Your task to perform on an android device: turn pop-ups on in chrome Image 0: 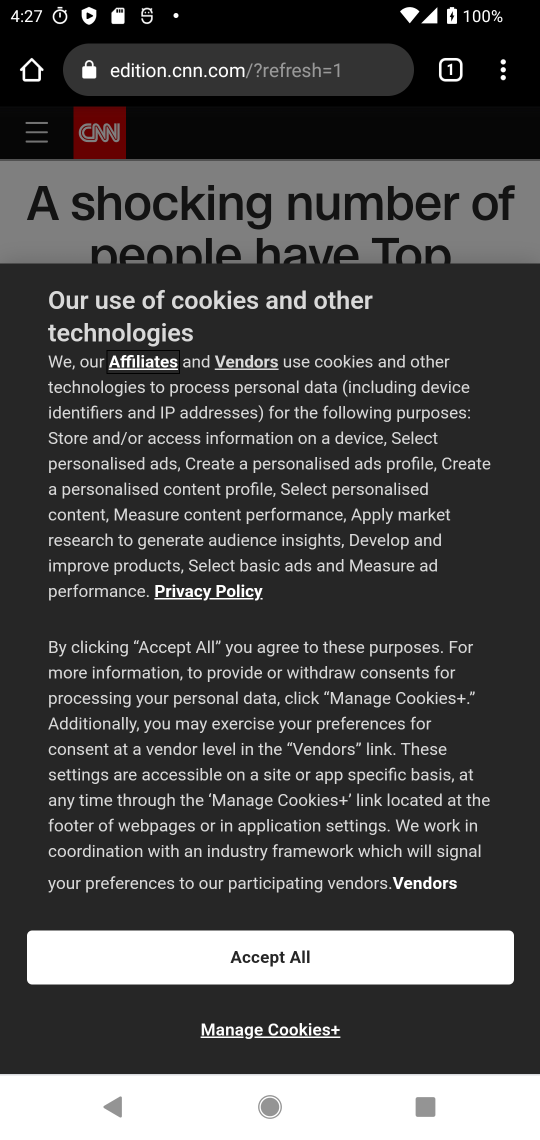
Step 0: press home button
Your task to perform on an android device: turn pop-ups on in chrome Image 1: 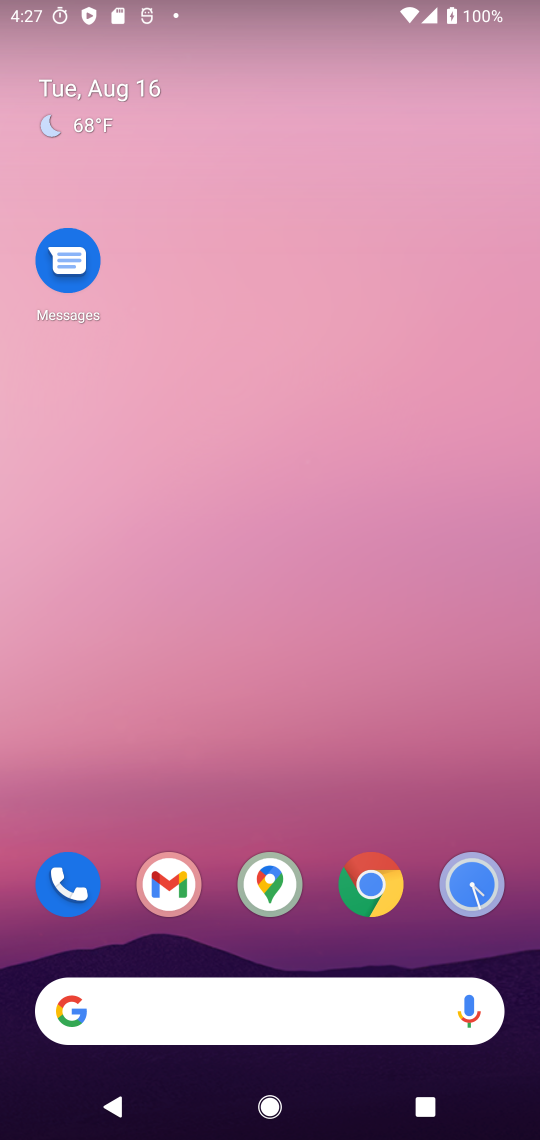
Step 1: click (377, 896)
Your task to perform on an android device: turn pop-ups on in chrome Image 2: 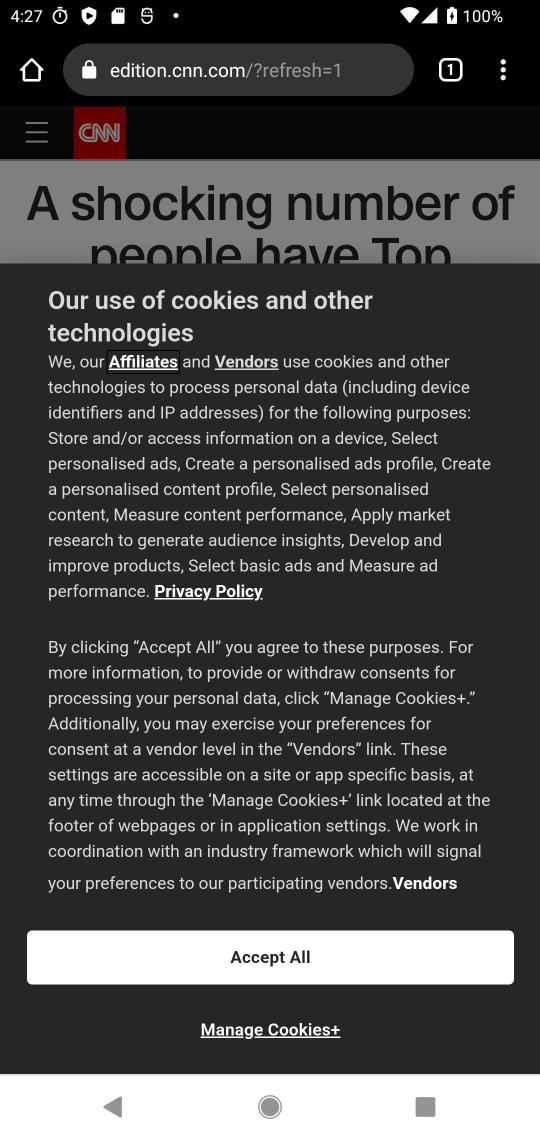
Step 2: click (490, 78)
Your task to perform on an android device: turn pop-ups on in chrome Image 3: 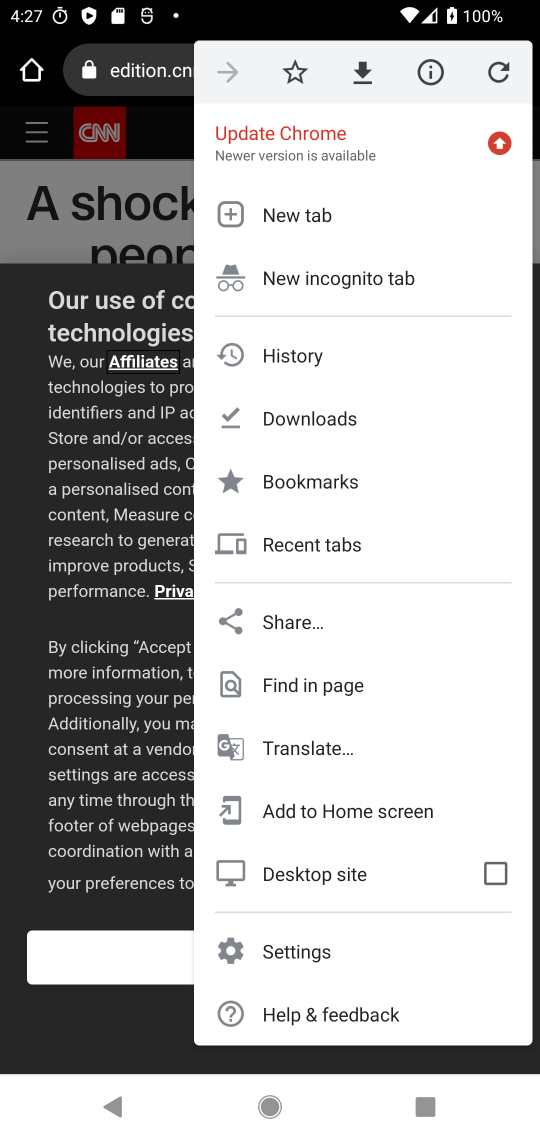
Step 3: click (330, 940)
Your task to perform on an android device: turn pop-ups on in chrome Image 4: 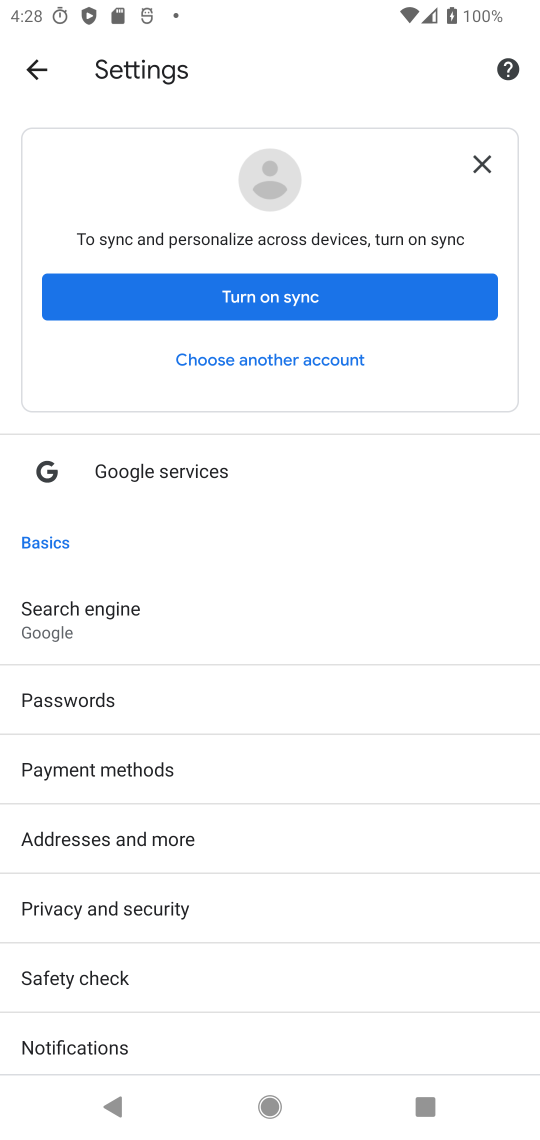
Step 4: drag from (358, 966) to (400, 602)
Your task to perform on an android device: turn pop-ups on in chrome Image 5: 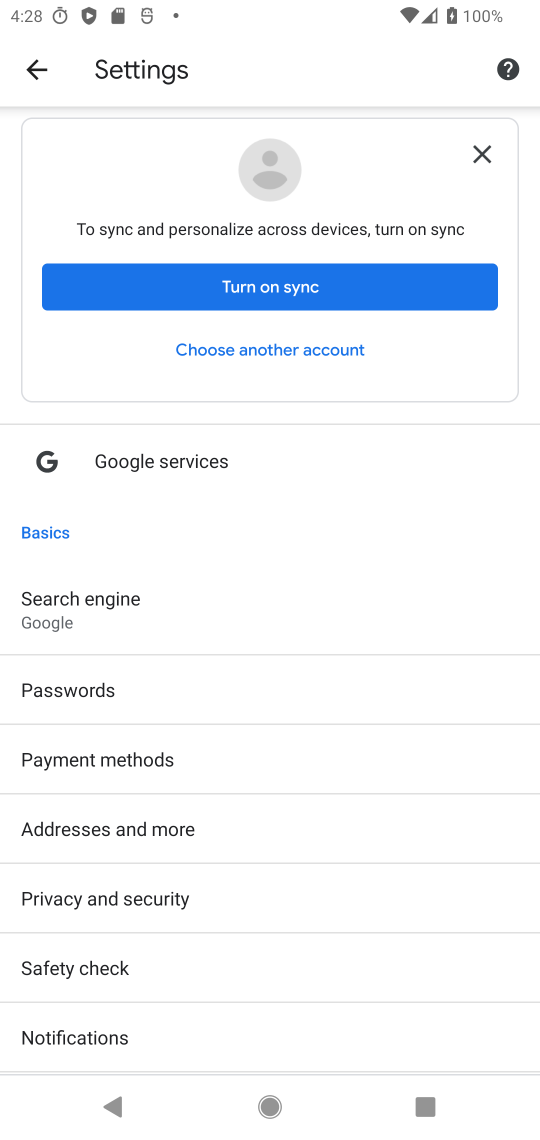
Step 5: drag from (354, 896) to (383, 303)
Your task to perform on an android device: turn pop-ups on in chrome Image 6: 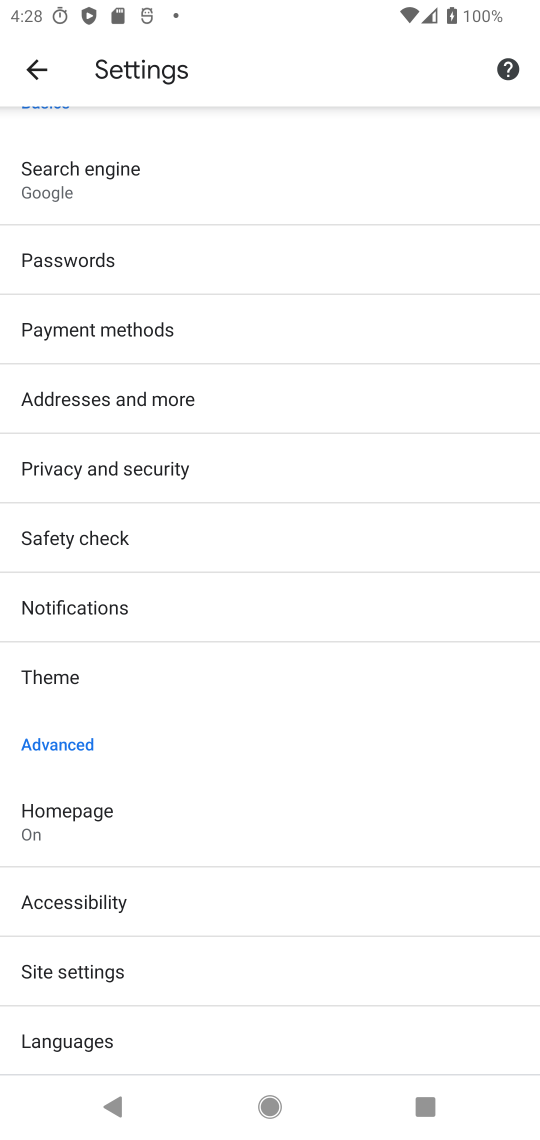
Step 6: click (94, 980)
Your task to perform on an android device: turn pop-ups on in chrome Image 7: 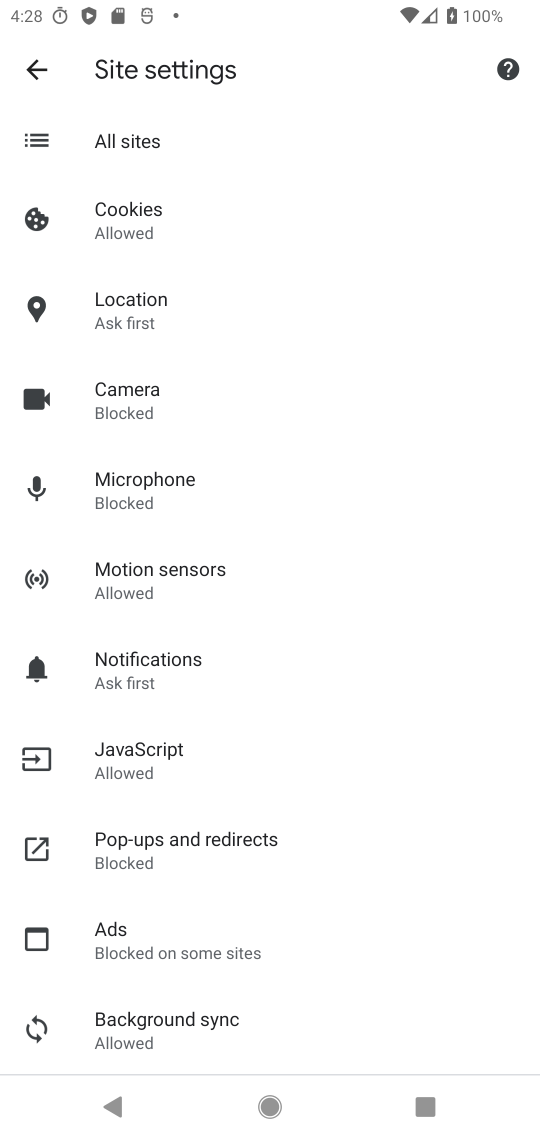
Step 7: click (116, 856)
Your task to perform on an android device: turn pop-ups on in chrome Image 8: 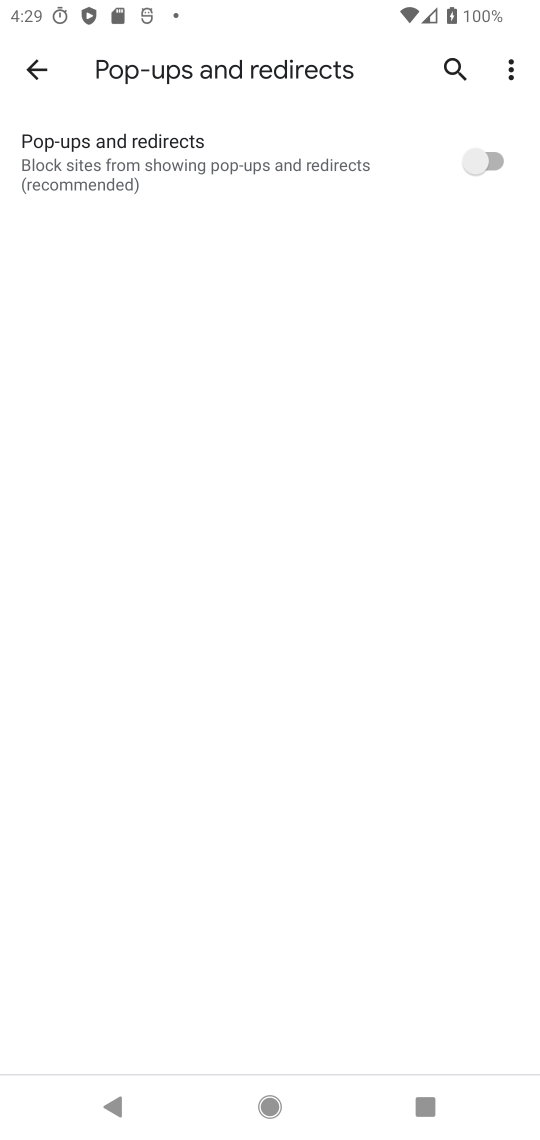
Step 8: click (487, 164)
Your task to perform on an android device: turn pop-ups on in chrome Image 9: 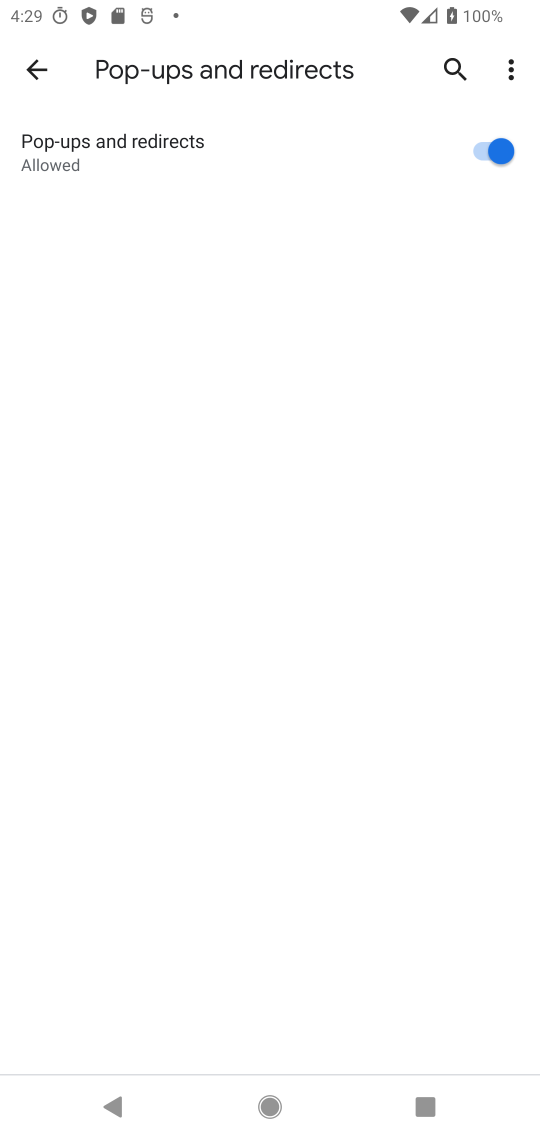
Step 9: task complete